Your task to perform on an android device: turn on location history Image 0: 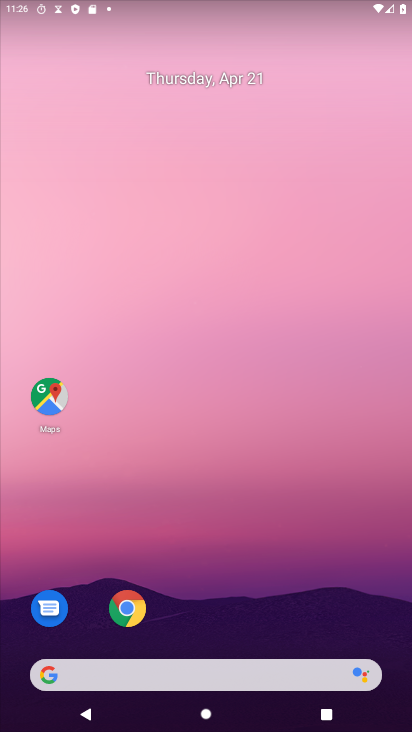
Step 0: drag from (144, 629) to (296, 147)
Your task to perform on an android device: turn on location history Image 1: 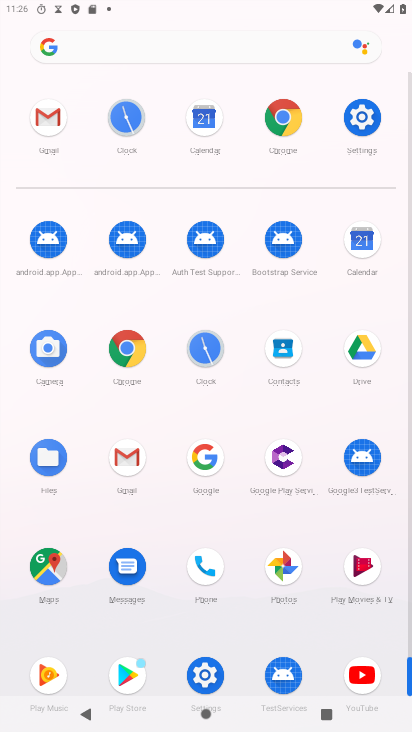
Step 1: click (215, 683)
Your task to perform on an android device: turn on location history Image 2: 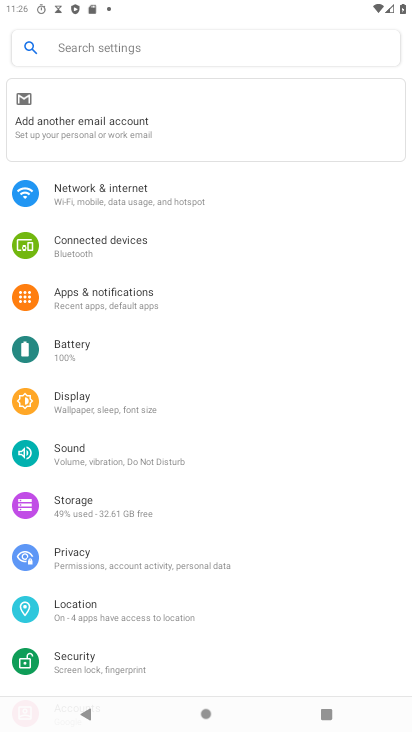
Step 2: click (91, 605)
Your task to perform on an android device: turn on location history Image 3: 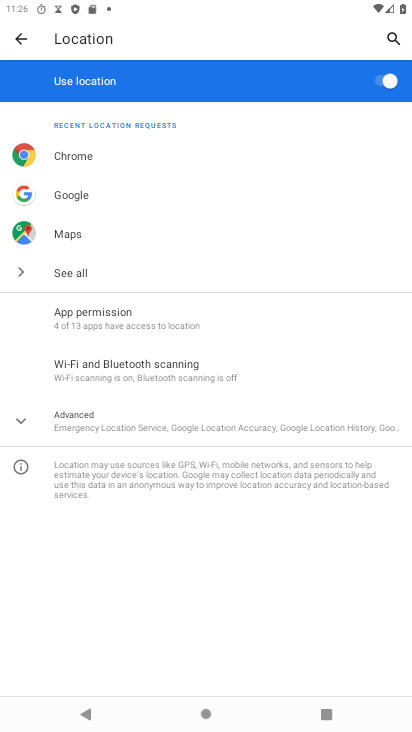
Step 3: task complete